Your task to perform on an android device: turn off javascript in the chrome app Image 0: 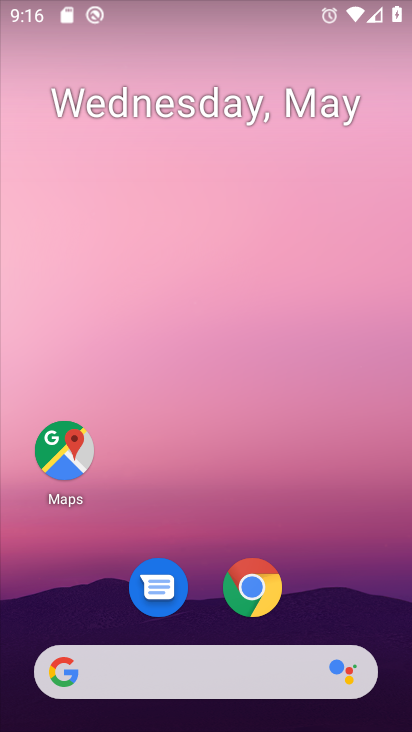
Step 0: click (267, 581)
Your task to perform on an android device: turn off javascript in the chrome app Image 1: 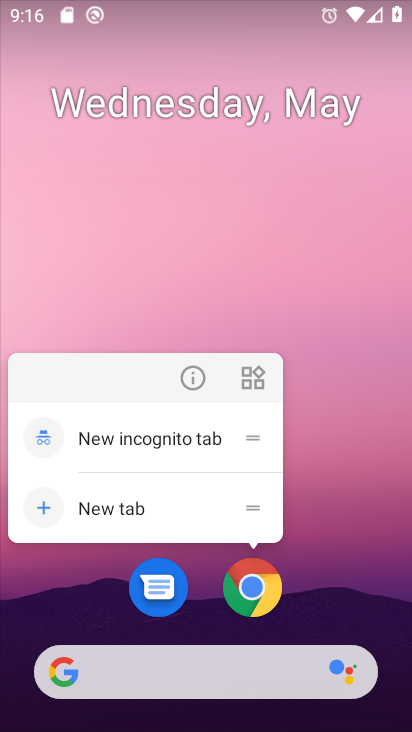
Step 1: click (257, 581)
Your task to perform on an android device: turn off javascript in the chrome app Image 2: 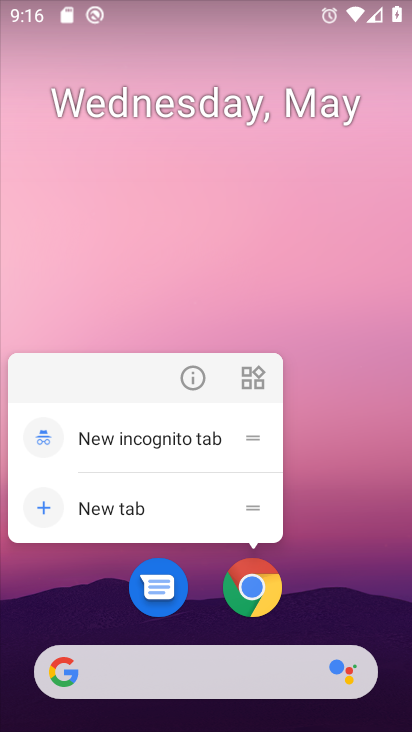
Step 2: click (252, 575)
Your task to perform on an android device: turn off javascript in the chrome app Image 3: 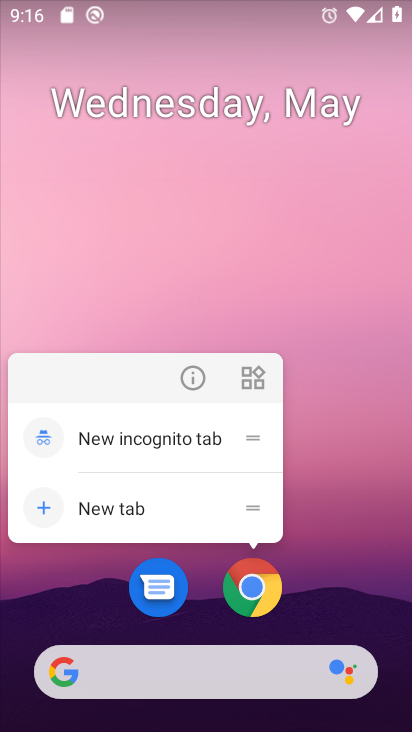
Step 3: click (252, 575)
Your task to perform on an android device: turn off javascript in the chrome app Image 4: 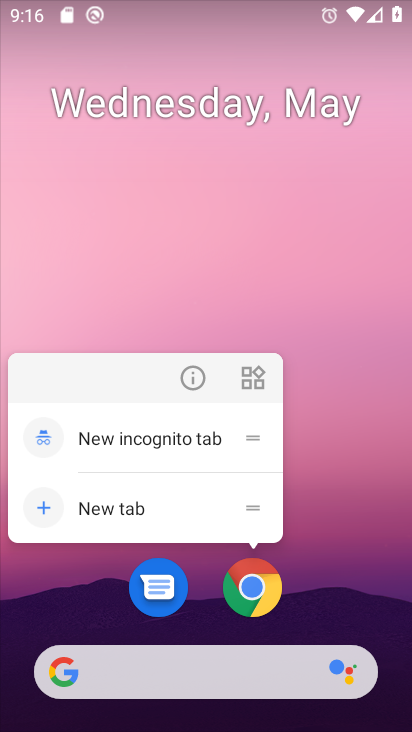
Step 4: click (253, 580)
Your task to perform on an android device: turn off javascript in the chrome app Image 5: 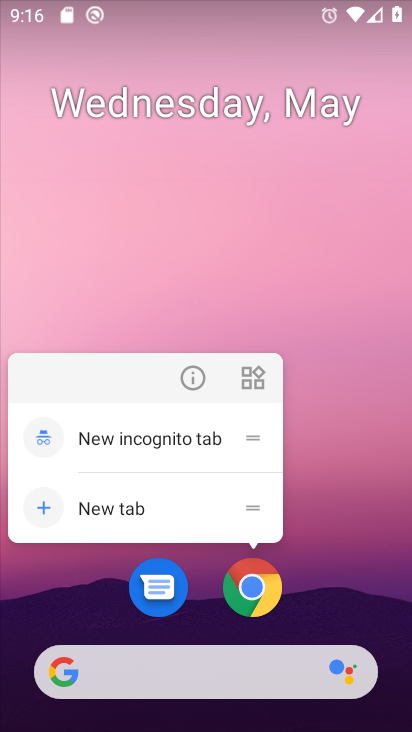
Step 5: click (260, 601)
Your task to perform on an android device: turn off javascript in the chrome app Image 6: 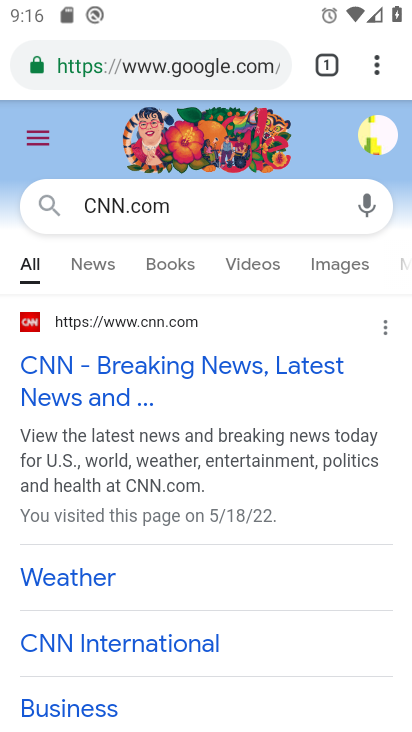
Step 6: click (379, 63)
Your task to perform on an android device: turn off javascript in the chrome app Image 7: 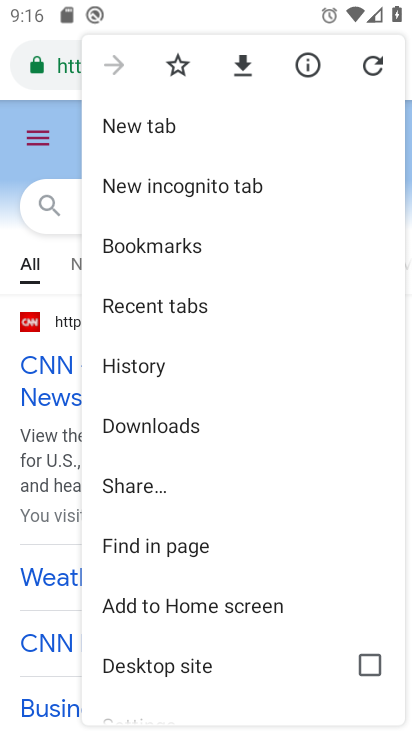
Step 7: drag from (226, 541) to (284, 254)
Your task to perform on an android device: turn off javascript in the chrome app Image 8: 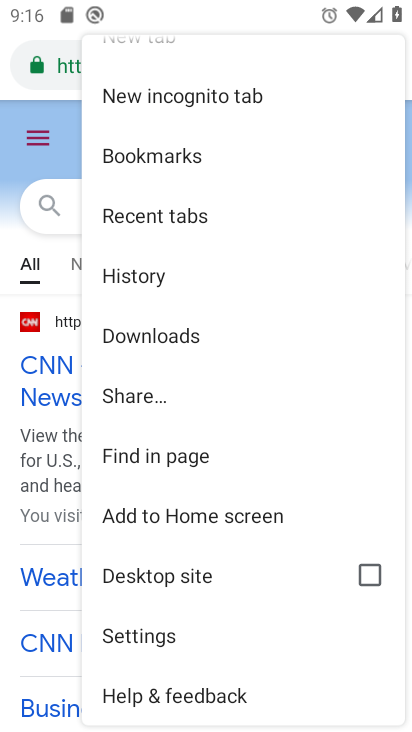
Step 8: click (159, 639)
Your task to perform on an android device: turn off javascript in the chrome app Image 9: 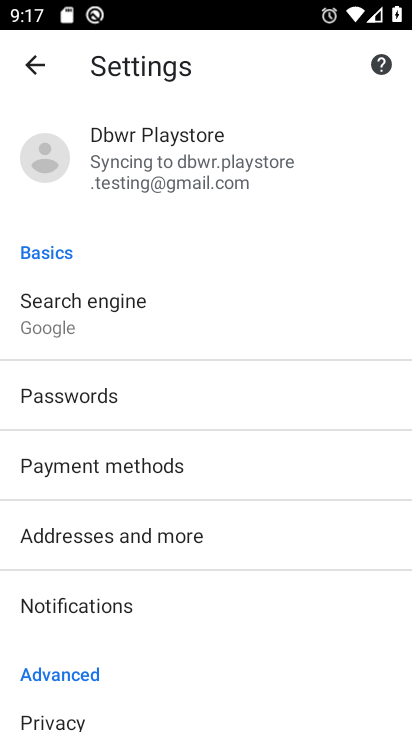
Step 9: drag from (116, 639) to (180, 396)
Your task to perform on an android device: turn off javascript in the chrome app Image 10: 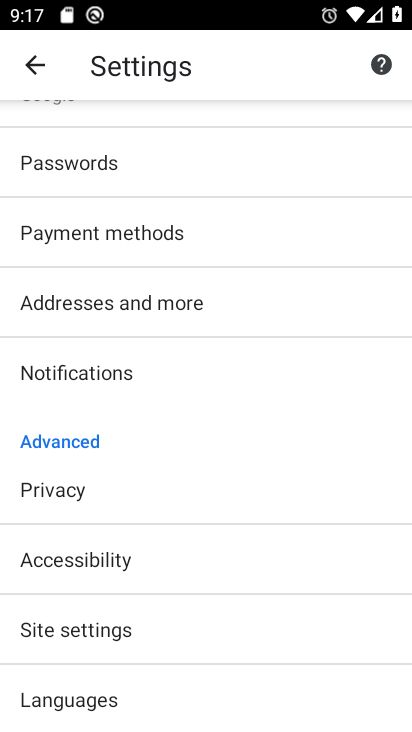
Step 10: drag from (123, 654) to (133, 515)
Your task to perform on an android device: turn off javascript in the chrome app Image 11: 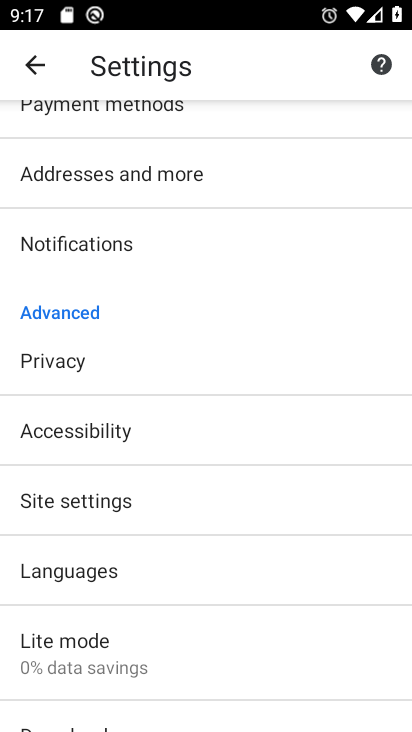
Step 11: click (89, 501)
Your task to perform on an android device: turn off javascript in the chrome app Image 12: 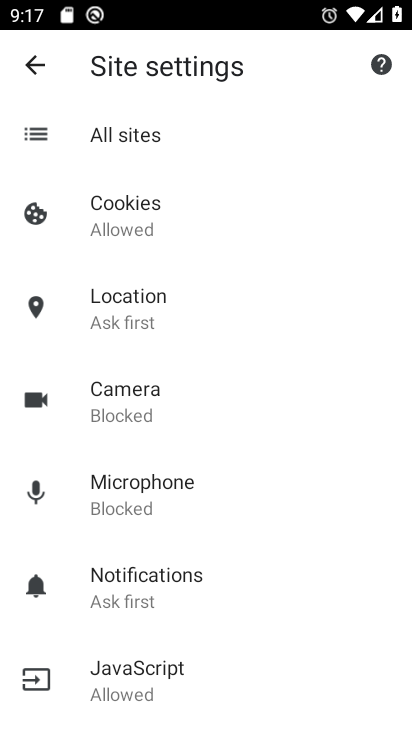
Step 12: click (163, 672)
Your task to perform on an android device: turn off javascript in the chrome app Image 13: 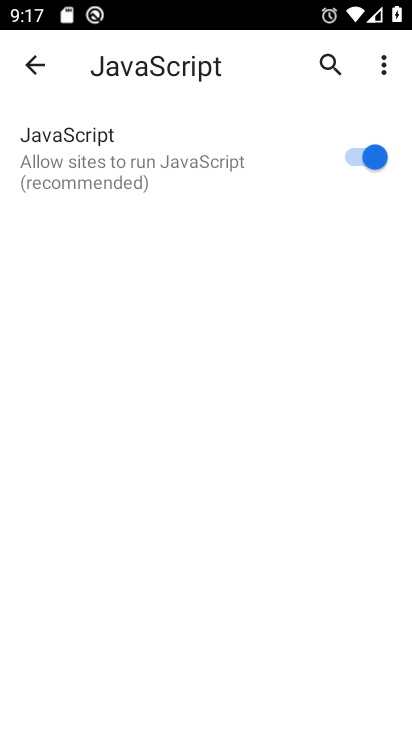
Step 13: click (331, 158)
Your task to perform on an android device: turn off javascript in the chrome app Image 14: 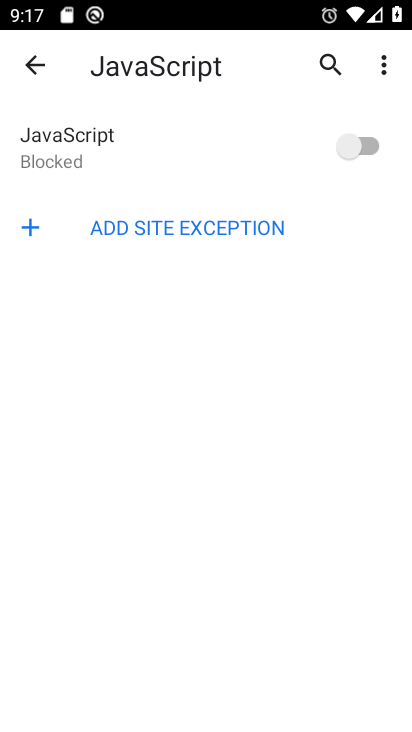
Step 14: task complete